Your task to perform on an android device: Go to Reddit.com Image 0: 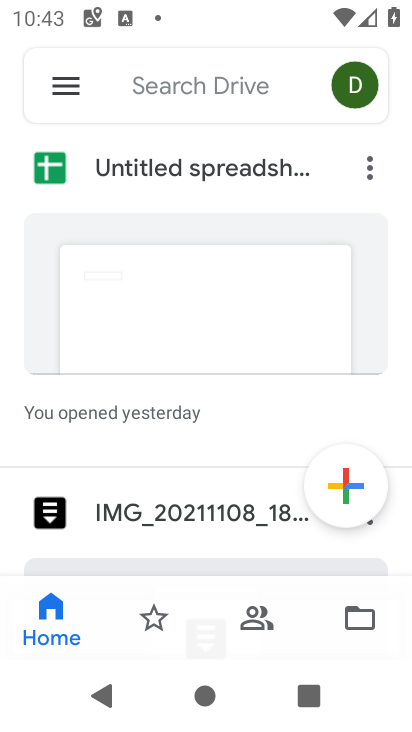
Step 0: press home button
Your task to perform on an android device: Go to Reddit.com Image 1: 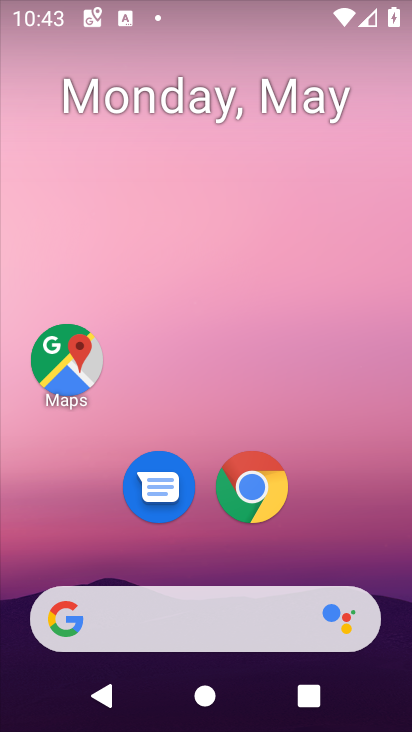
Step 1: click (259, 488)
Your task to perform on an android device: Go to Reddit.com Image 2: 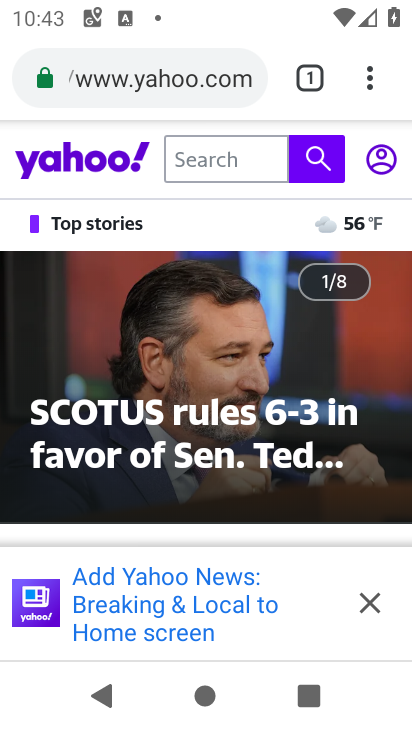
Step 2: click (311, 91)
Your task to perform on an android device: Go to Reddit.com Image 3: 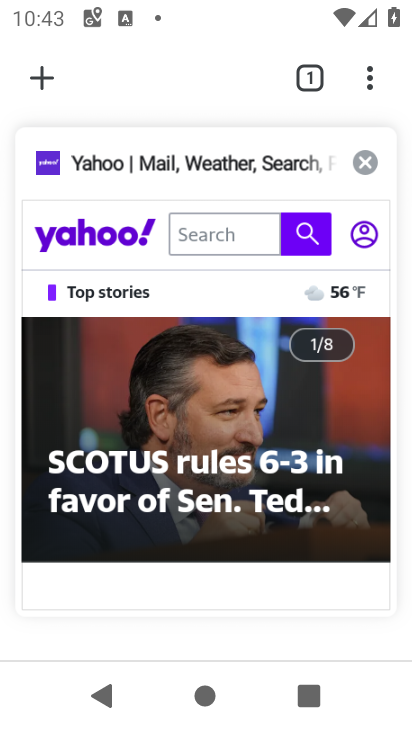
Step 3: click (41, 85)
Your task to perform on an android device: Go to Reddit.com Image 4: 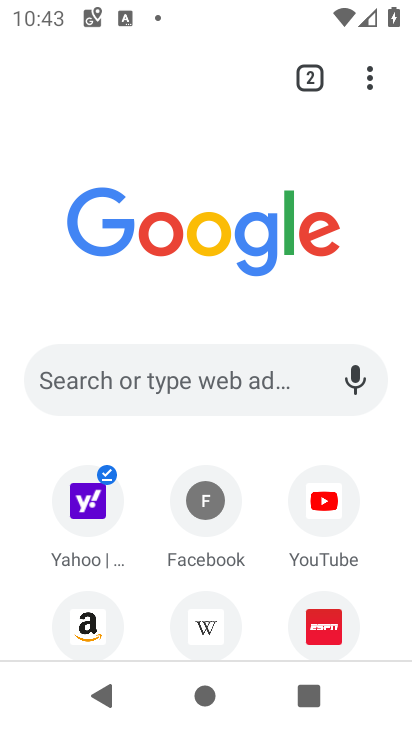
Step 4: click (127, 362)
Your task to perform on an android device: Go to Reddit.com Image 5: 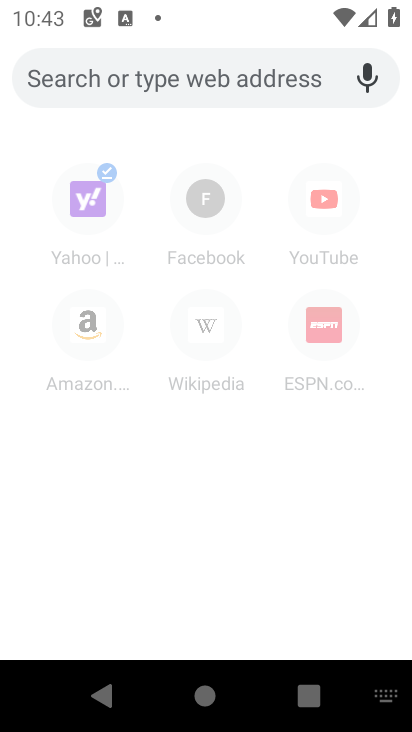
Step 5: type "reddit"
Your task to perform on an android device: Go to Reddit.com Image 6: 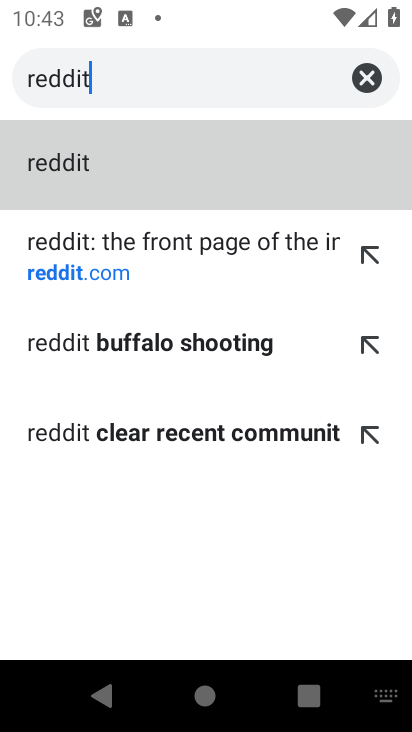
Step 6: click (128, 280)
Your task to perform on an android device: Go to Reddit.com Image 7: 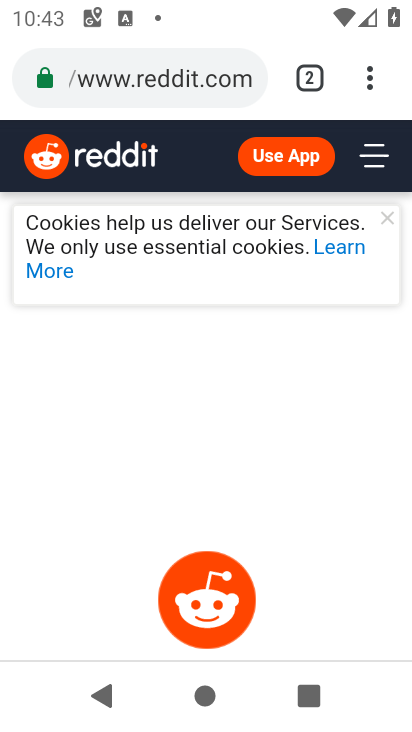
Step 7: task complete